Your task to perform on an android device: toggle translation in the chrome app Image 0: 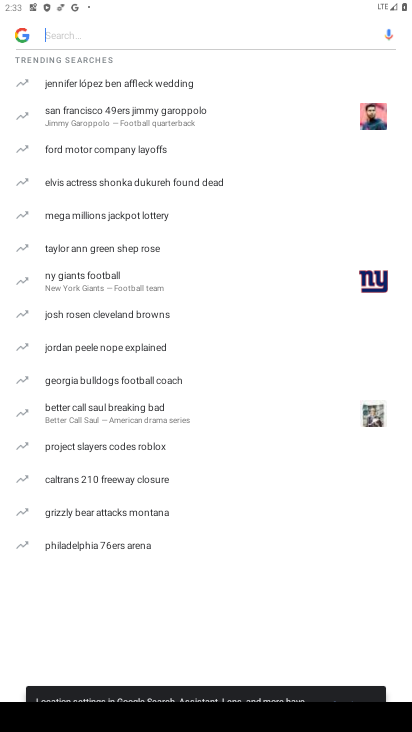
Step 0: press home button
Your task to perform on an android device: toggle translation in the chrome app Image 1: 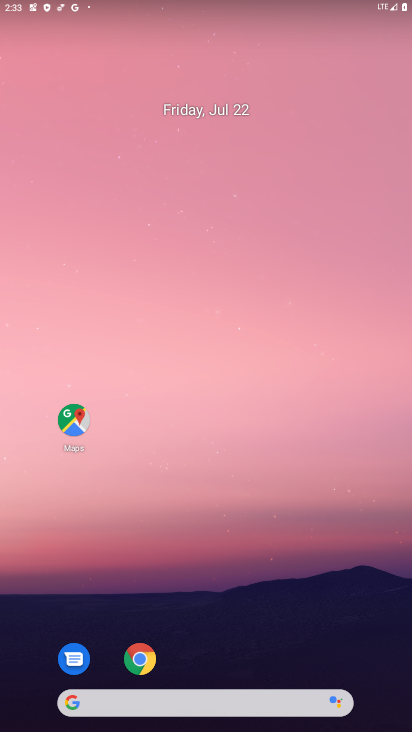
Step 1: click (135, 660)
Your task to perform on an android device: toggle translation in the chrome app Image 2: 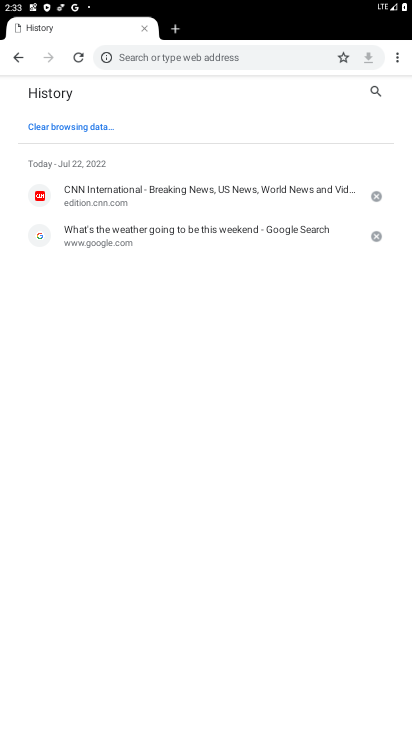
Step 2: click (395, 56)
Your task to perform on an android device: toggle translation in the chrome app Image 3: 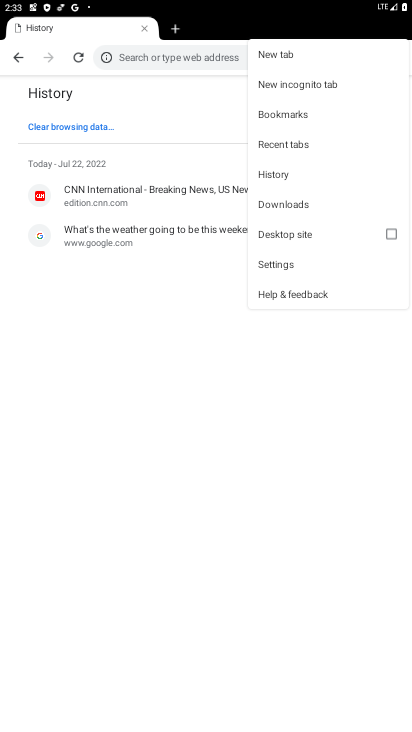
Step 3: click (277, 262)
Your task to perform on an android device: toggle translation in the chrome app Image 4: 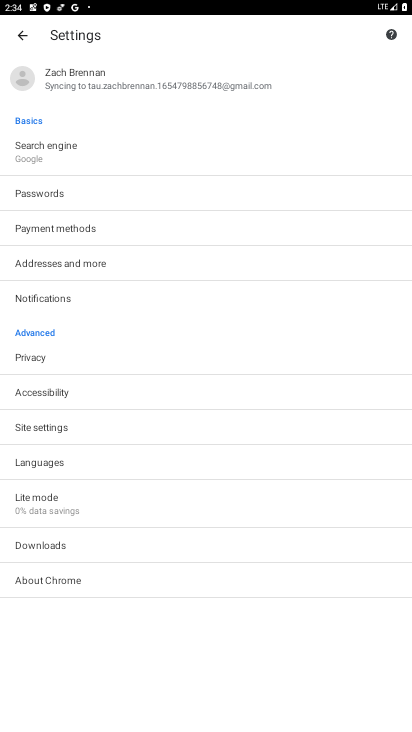
Step 4: click (46, 459)
Your task to perform on an android device: toggle translation in the chrome app Image 5: 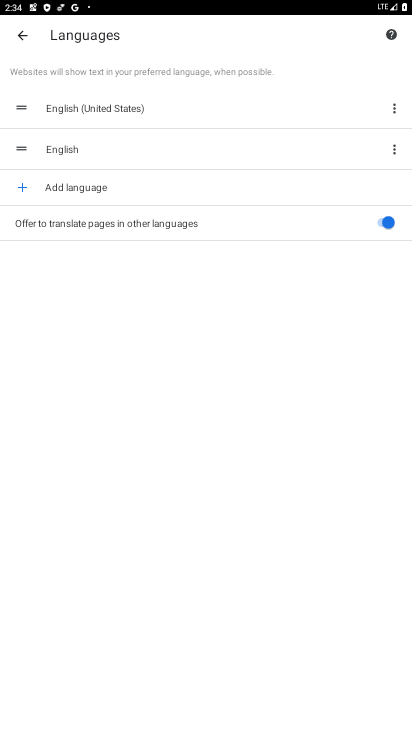
Step 5: click (377, 221)
Your task to perform on an android device: toggle translation in the chrome app Image 6: 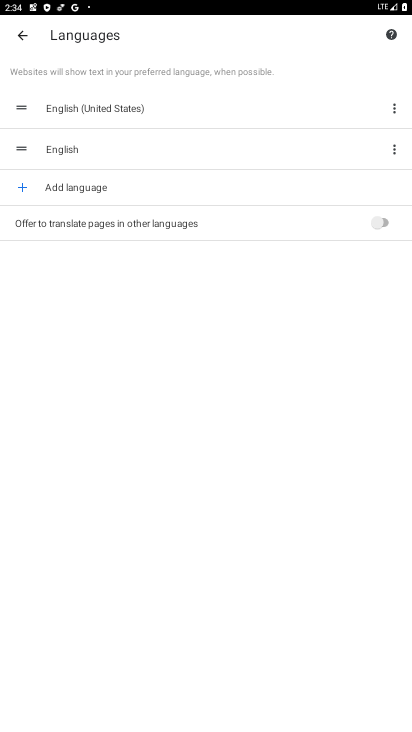
Step 6: task complete